Your task to perform on an android device: Show me recent news Image 0: 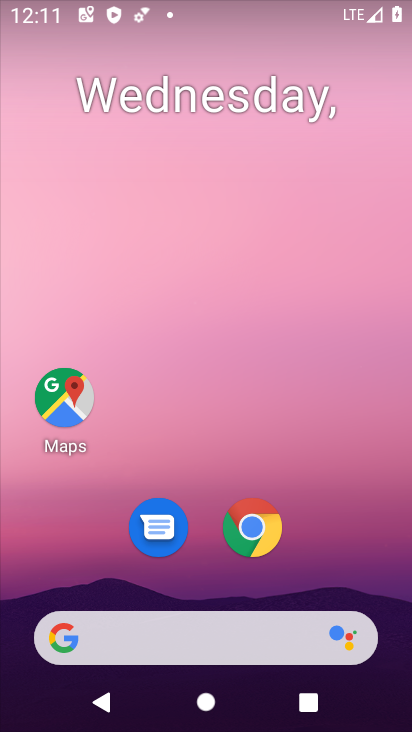
Step 0: drag from (160, 585) to (128, 28)
Your task to perform on an android device: Show me recent news Image 1: 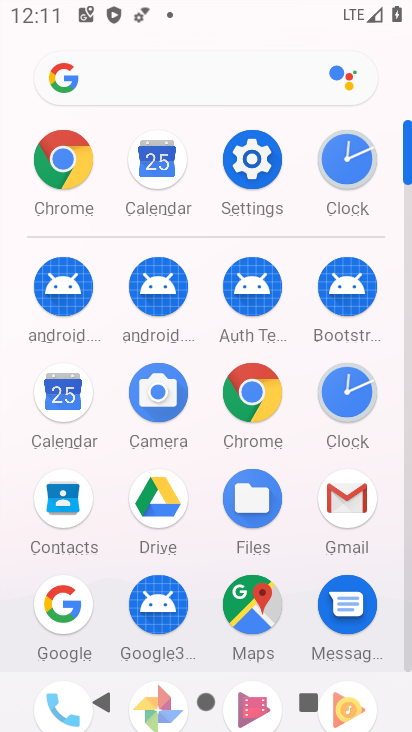
Step 1: click (260, 403)
Your task to perform on an android device: Show me recent news Image 2: 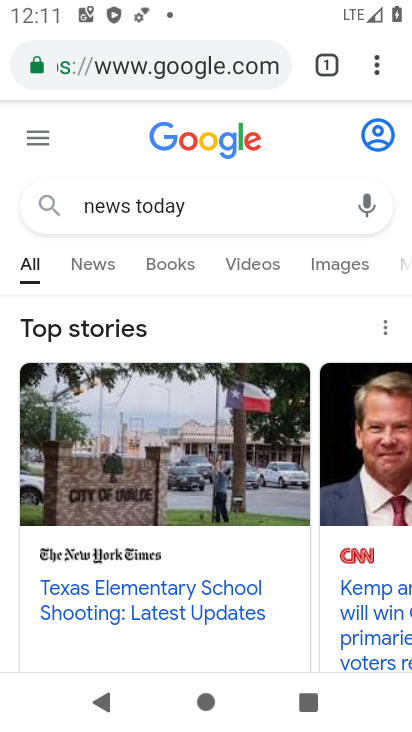
Step 2: click (222, 61)
Your task to perform on an android device: Show me recent news Image 3: 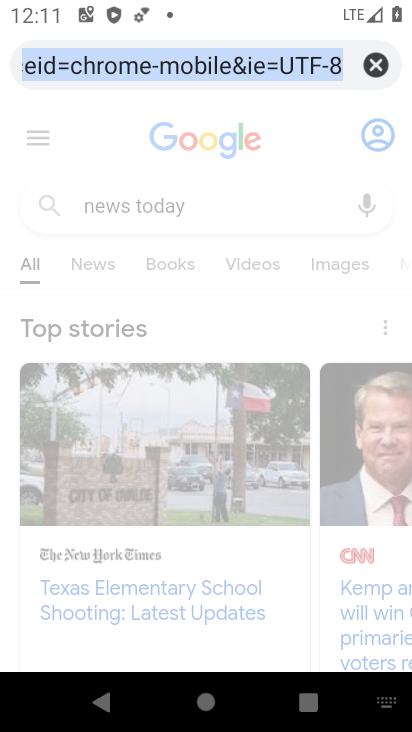
Step 3: type "recent news"
Your task to perform on an android device: Show me recent news Image 4: 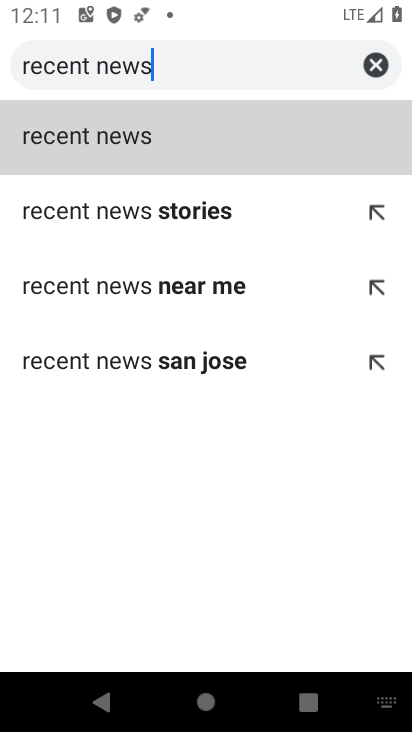
Step 4: click (99, 136)
Your task to perform on an android device: Show me recent news Image 5: 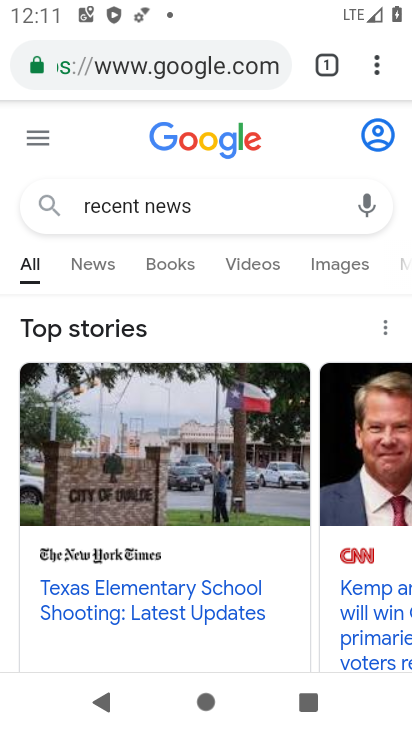
Step 5: task complete